Your task to perform on an android device: Open CNN.com Image 0: 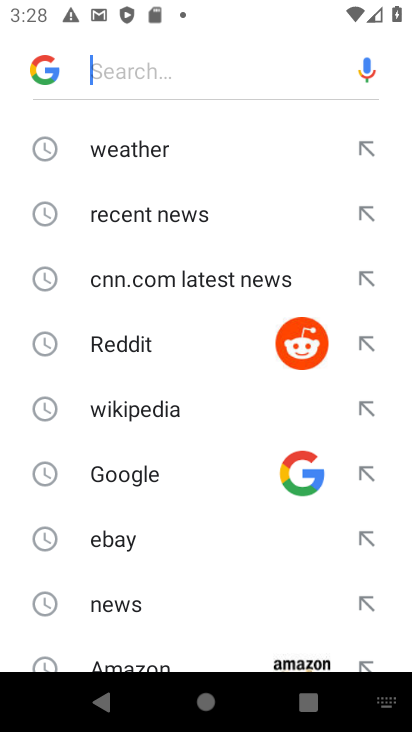
Step 0: press home button
Your task to perform on an android device: Open CNN.com Image 1: 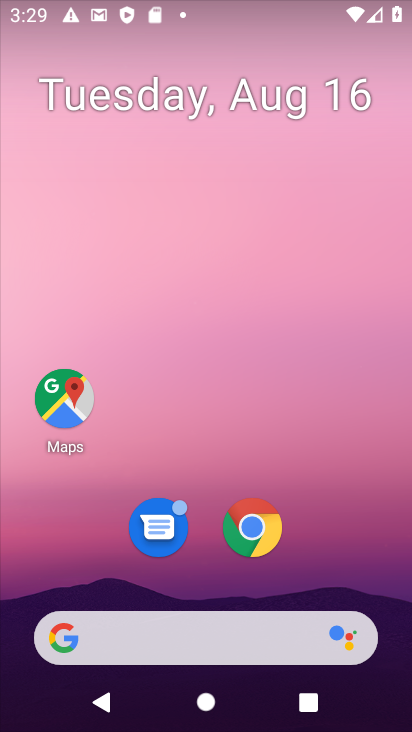
Step 1: click (268, 522)
Your task to perform on an android device: Open CNN.com Image 2: 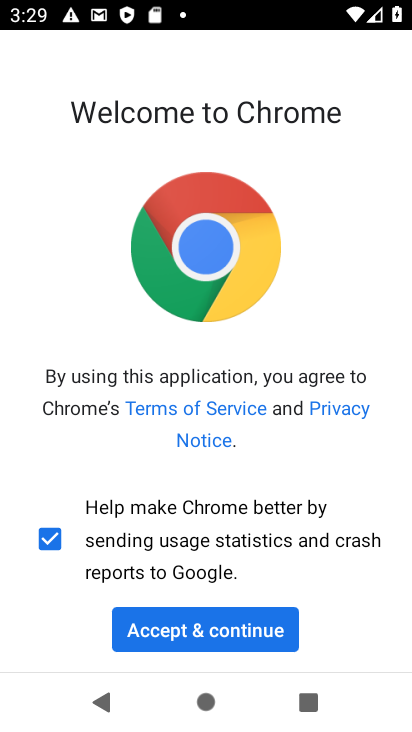
Step 2: click (220, 629)
Your task to perform on an android device: Open CNN.com Image 3: 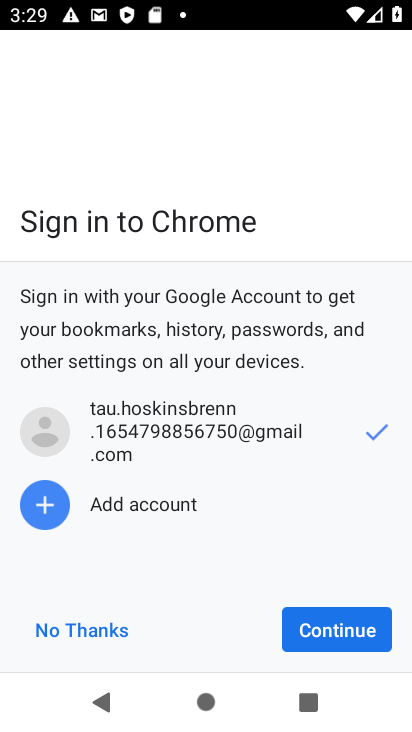
Step 3: click (306, 624)
Your task to perform on an android device: Open CNN.com Image 4: 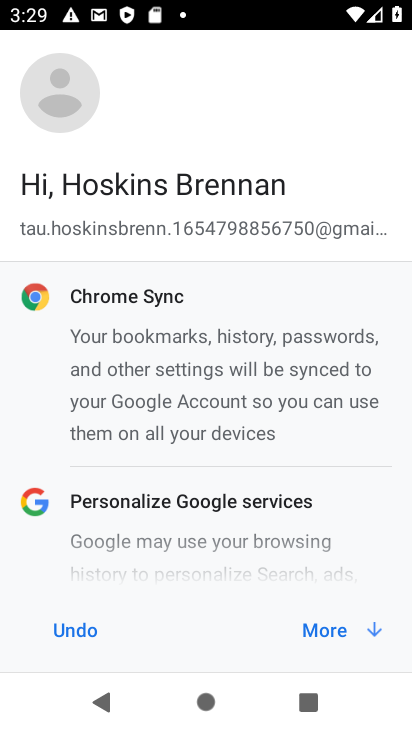
Step 4: click (306, 624)
Your task to perform on an android device: Open CNN.com Image 5: 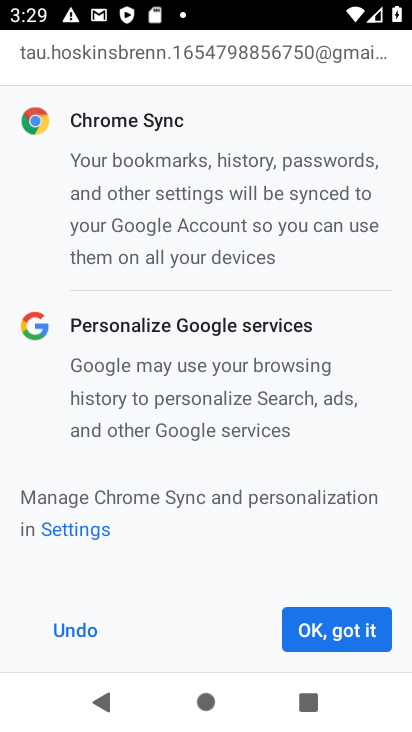
Step 5: click (306, 624)
Your task to perform on an android device: Open CNN.com Image 6: 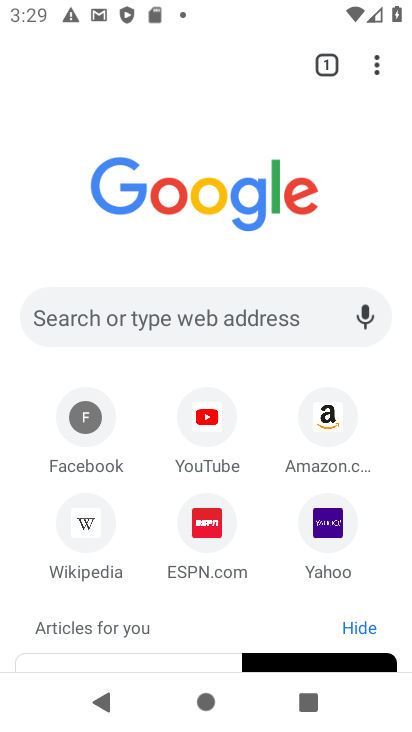
Step 6: click (97, 302)
Your task to perform on an android device: Open CNN.com Image 7: 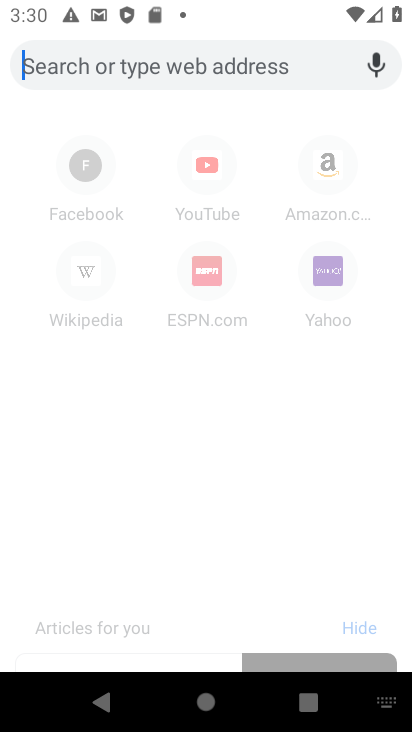
Step 7: type "CNN.com"
Your task to perform on an android device: Open CNN.com Image 8: 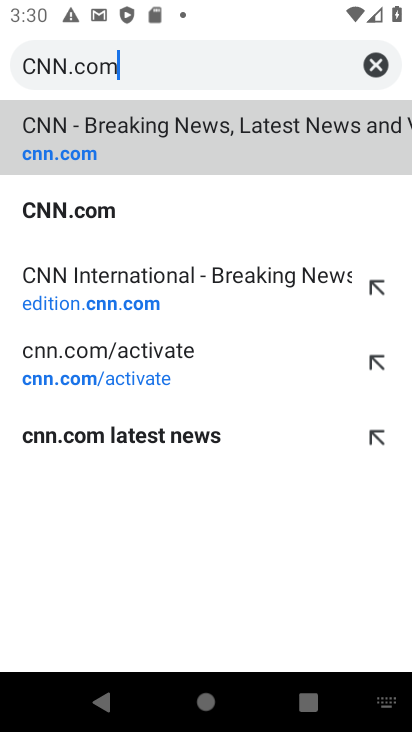
Step 8: click (53, 151)
Your task to perform on an android device: Open CNN.com Image 9: 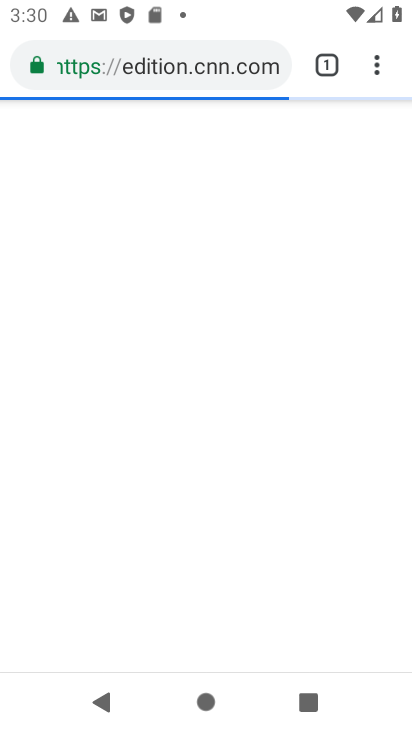
Step 9: task complete